Your task to perform on an android device: Search for Italian restaurants on Maps Image 0: 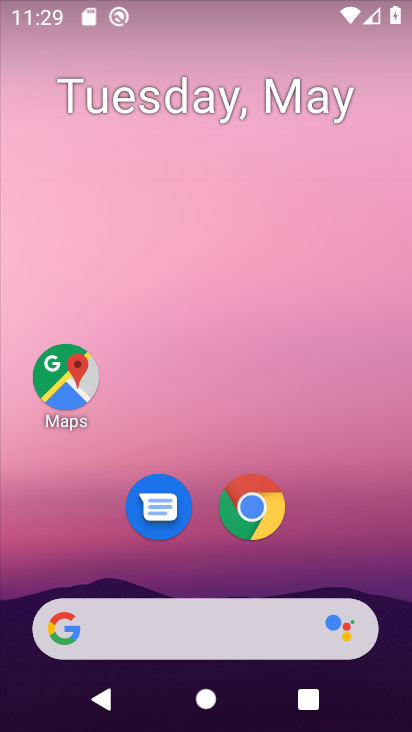
Step 0: drag from (251, 651) to (186, 280)
Your task to perform on an android device: Search for Italian restaurants on Maps Image 1: 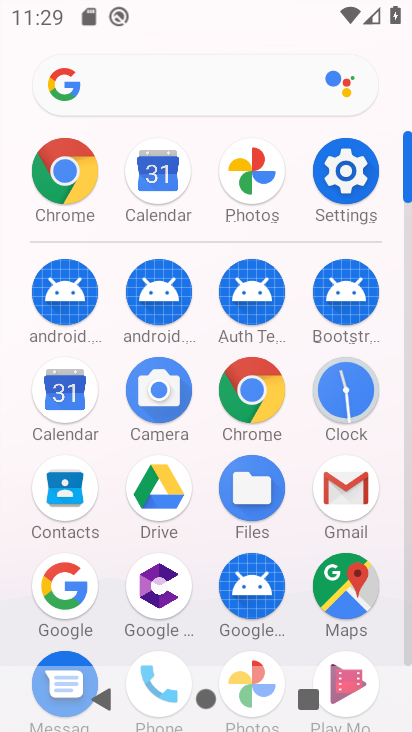
Step 1: click (346, 587)
Your task to perform on an android device: Search for Italian restaurants on Maps Image 2: 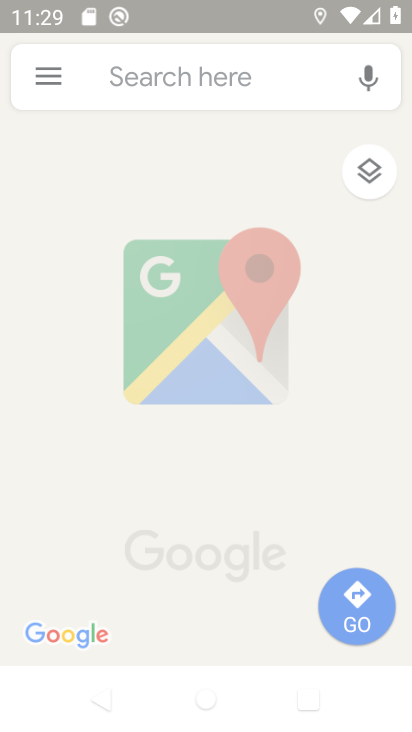
Step 2: click (346, 588)
Your task to perform on an android device: Search for Italian restaurants on Maps Image 3: 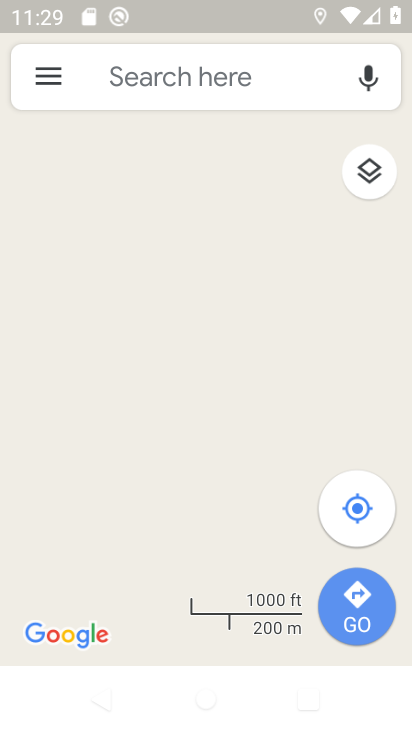
Step 3: click (107, 68)
Your task to perform on an android device: Search for Italian restaurants on Maps Image 4: 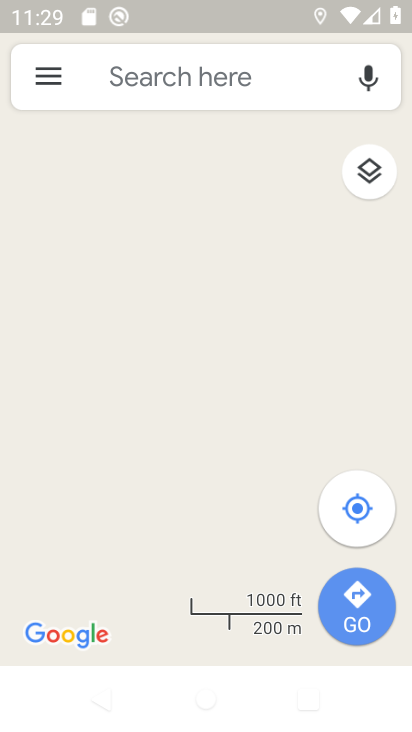
Step 4: click (108, 70)
Your task to perform on an android device: Search for Italian restaurants on Maps Image 5: 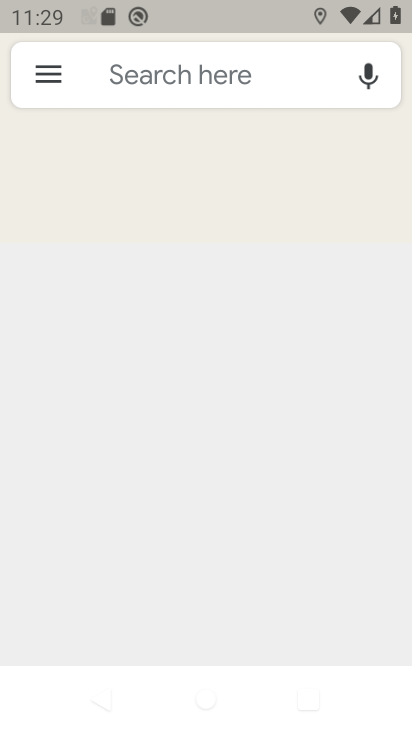
Step 5: click (129, 80)
Your task to perform on an android device: Search for Italian restaurants on Maps Image 6: 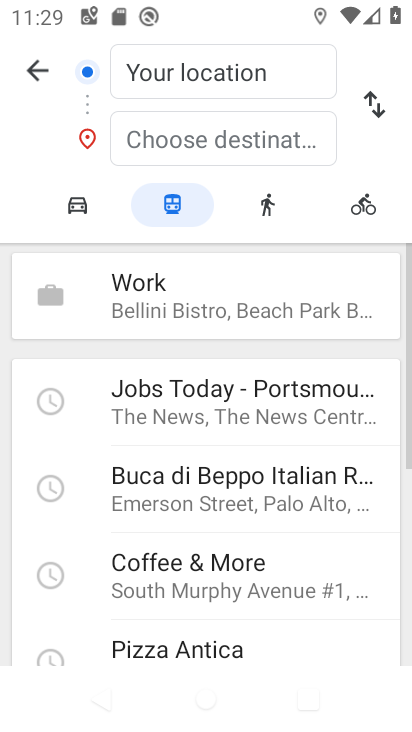
Step 6: click (33, 69)
Your task to perform on an android device: Search for Italian restaurants on Maps Image 7: 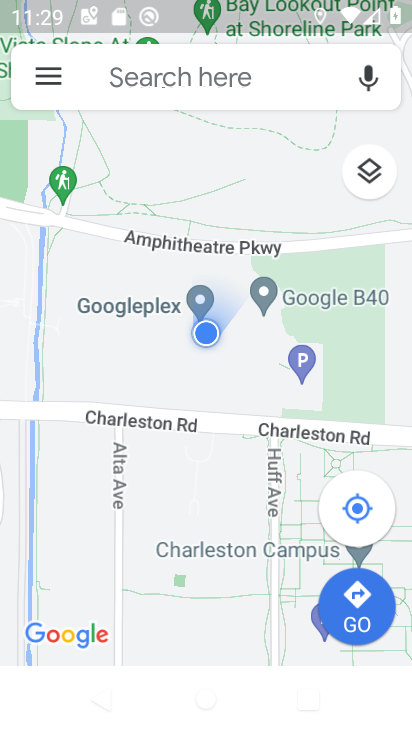
Step 7: click (118, 81)
Your task to perform on an android device: Search for Italian restaurants on Maps Image 8: 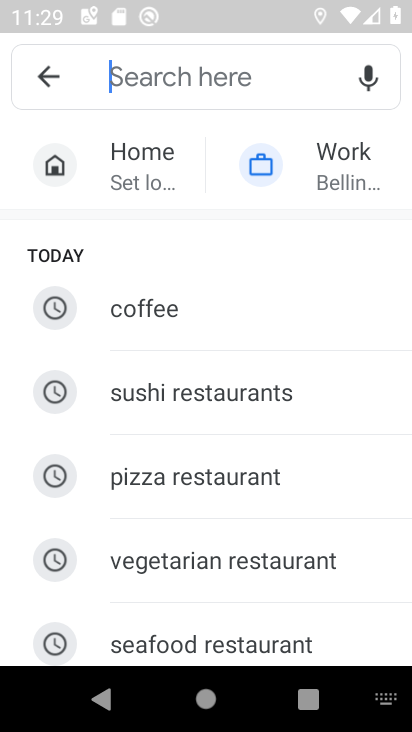
Step 8: type "italian restaurants"
Your task to perform on an android device: Search for Italian restaurants on Maps Image 9: 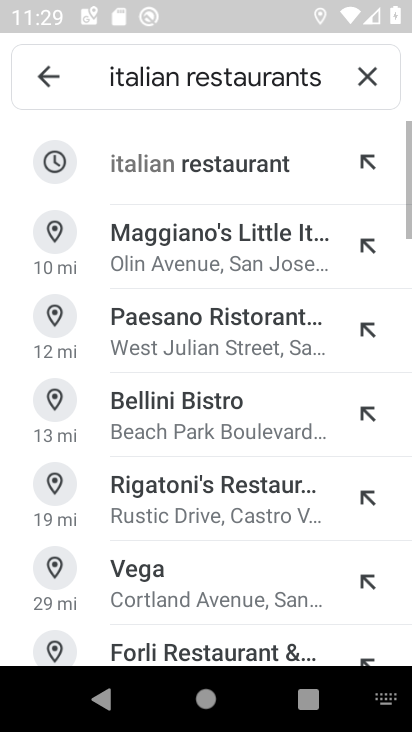
Step 9: click (203, 161)
Your task to perform on an android device: Search for Italian restaurants on Maps Image 10: 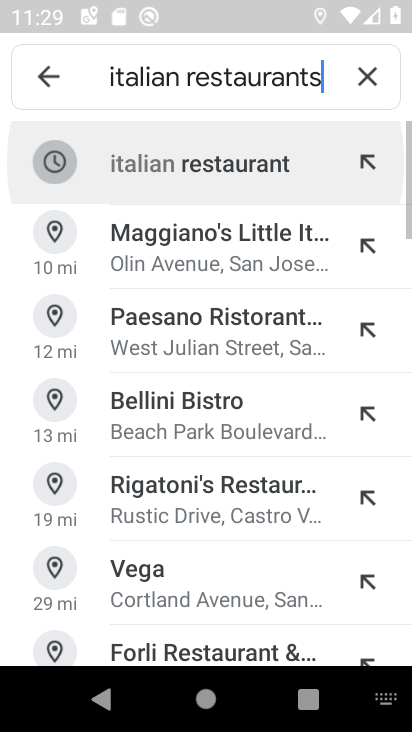
Step 10: click (202, 164)
Your task to perform on an android device: Search for Italian restaurants on Maps Image 11: 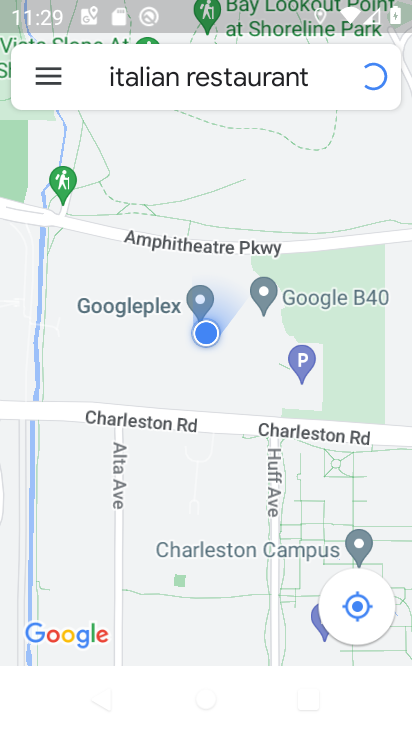
Step 11: task complete